Your task to perform on an android device: Open battery settings Image 0: 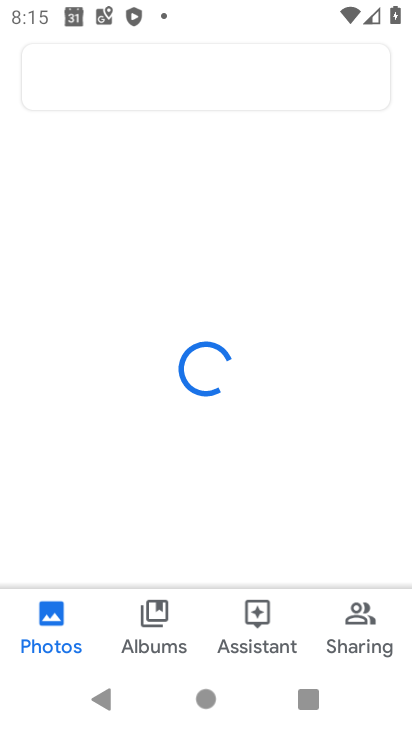
Step 0: press home button
Your task to perform on an android device: Open battery settings Image 1: 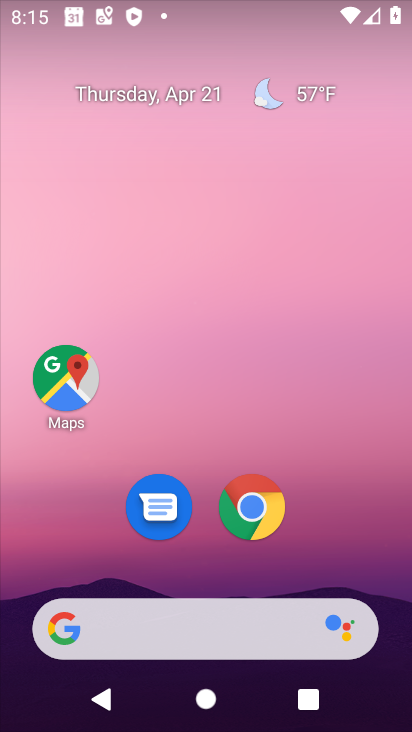
Step 1: drag from (314, 556) to (285, 353)
Your task to perform on an android device: Open battery settings Image 2: 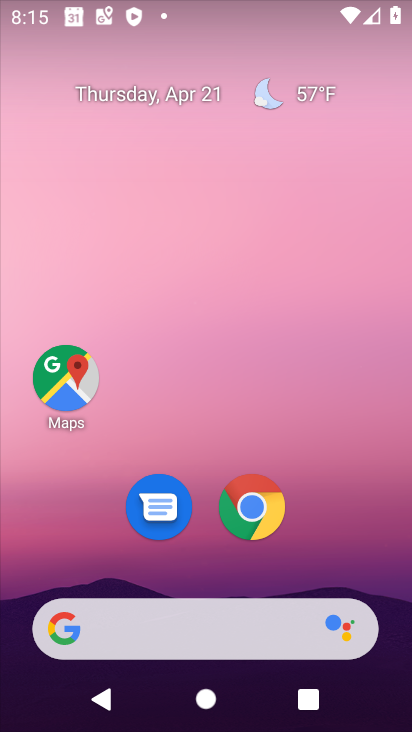
Step 2: drag from (341, 395) to (250, 3)
Your task to perform on an android device: Open battery settings Image 3: 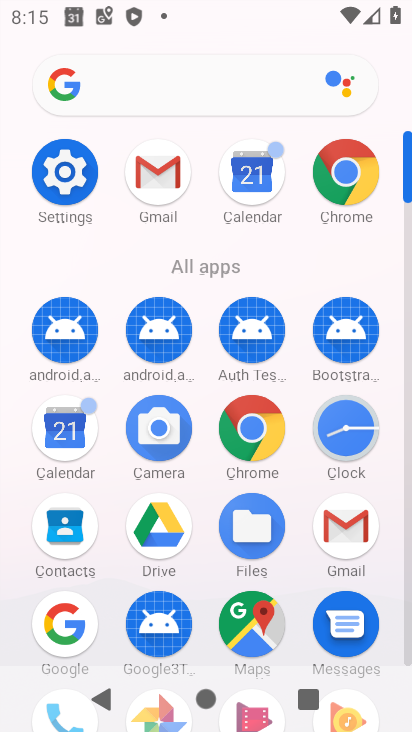
Step 3: click (69, 158)
Your task to perform on an android device: Open battery settings Image 4: 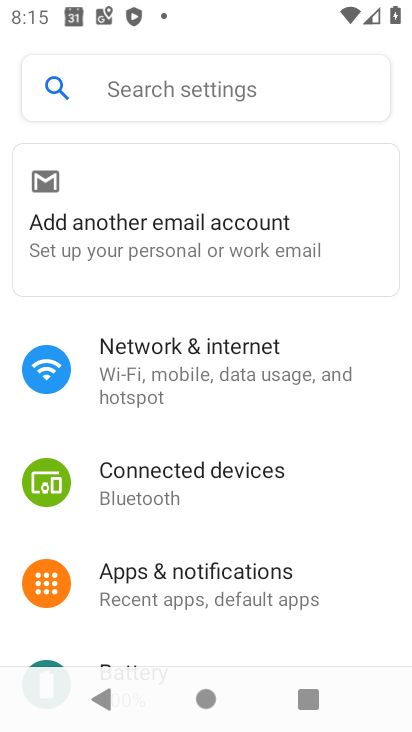
Step 4: drag from (216, 620) to (213, 215)
Your task to perform on an android device: Open battery settings Image 5: 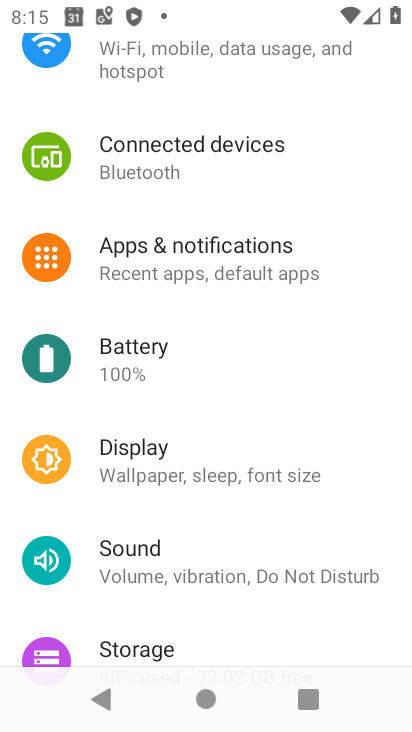
Step 5: click (145, 355)
Your task to perform on an android device: Open battery settings Image 6: 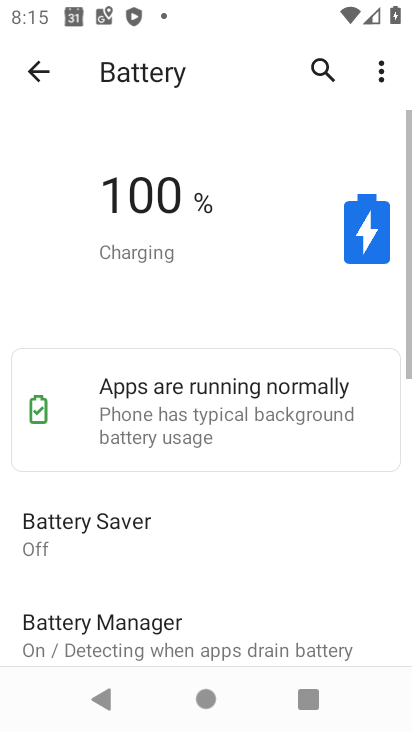
Step 6: task complete